Your task to perform on an android device: turn vacation reply on in the gmail app Image 0: 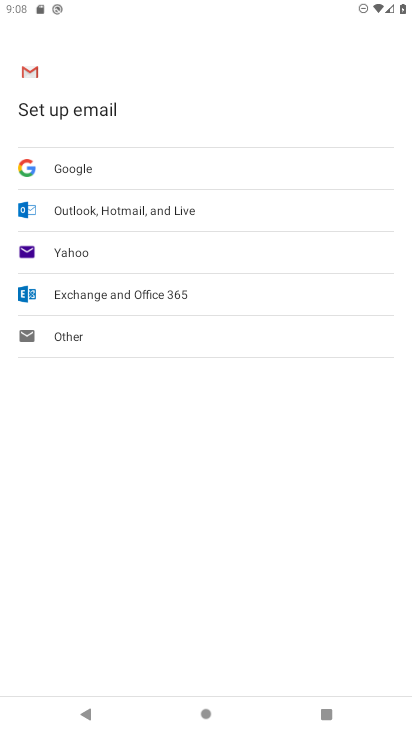
Step 0: press home button
Your task to perform on an android device: turn vacation reply on in the gmail app Image 1: 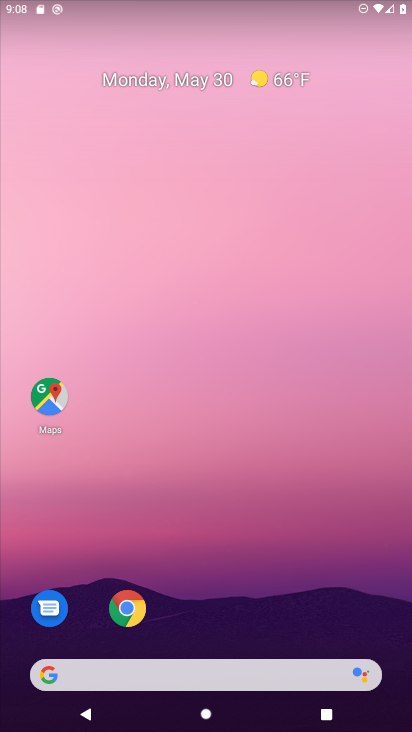
Step 1: drag from (240, 457) to (240, 26)
Your task to perform on an android device: turn vacation reply on in the gmail app Image 2: 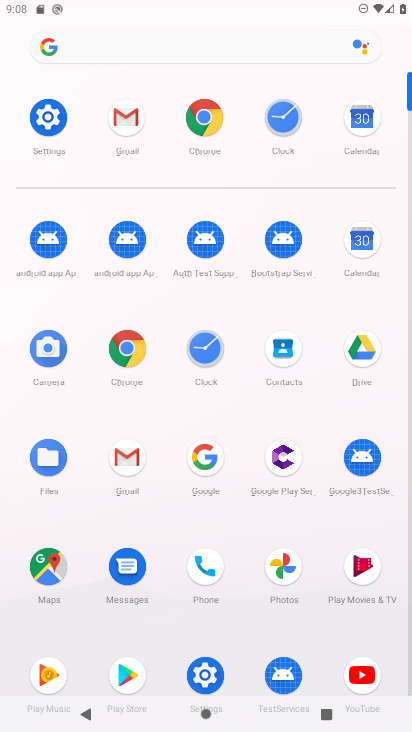
Step 2: click (133, 459)
Your task to perform on an android device: turn vacation reply on in the gmail app Image 3: 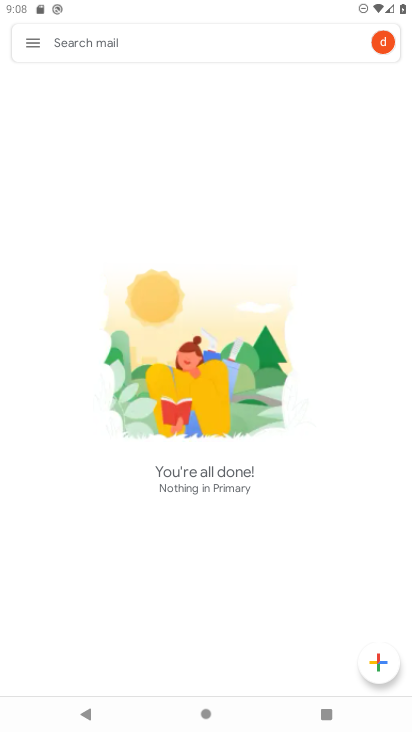
Step 3: click (32, 44)
Your task to perform on an android device: turn vacation reply on in the gmail app Image 4: 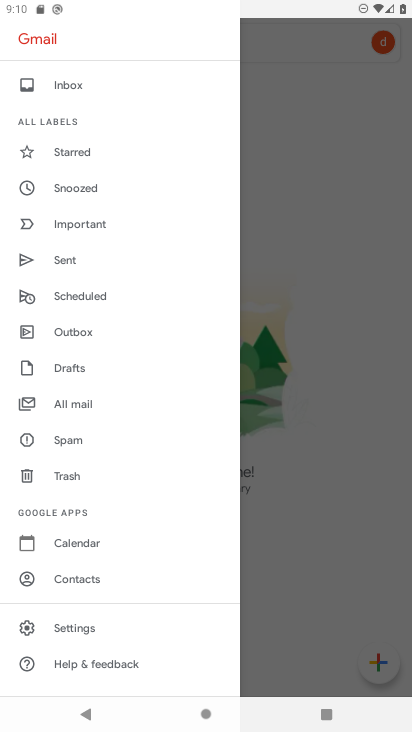
Step 4: click (63, 627)
Your task to perform on an android device: turn vacation reply on in the gmail app Image 5: 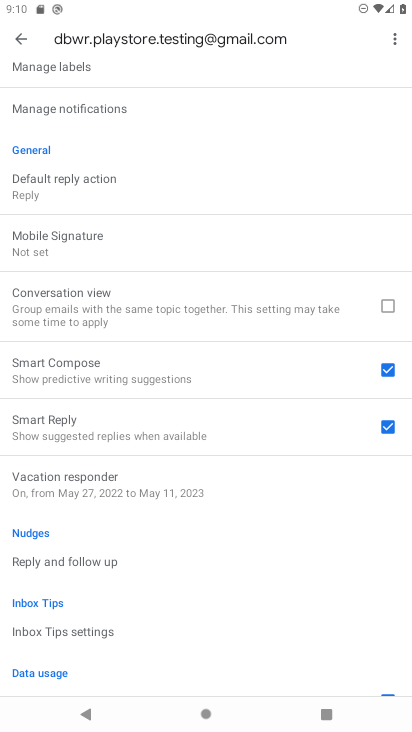
Step 5: drag from (146, 627) to (152, 139)
Your task to perform on an android device: turn vacation reply on in the gmail app Image 6: 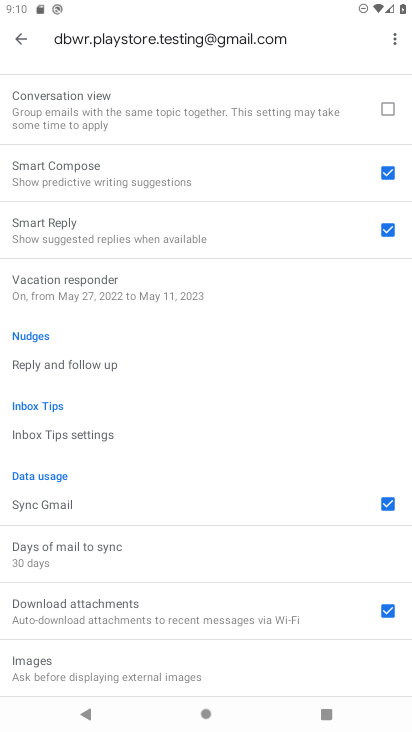
Step 6: click (117, 279)
Your task to perform on an android device: turn vacation reply on in the gmail app Image 7: 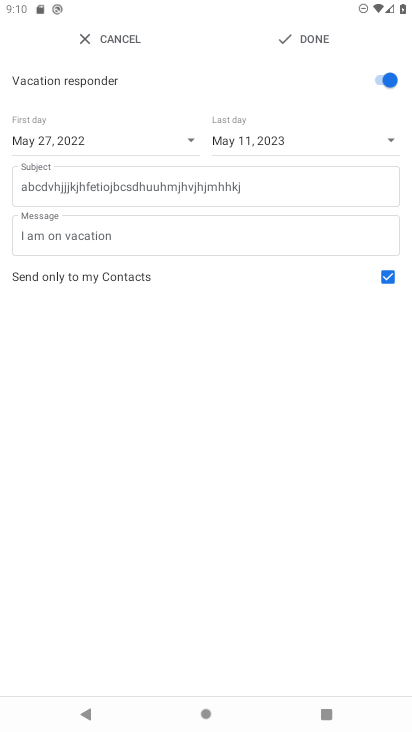
Step 7: task complete